Your task to perform on an android device: turn pop-ups off in chrome Image 0: 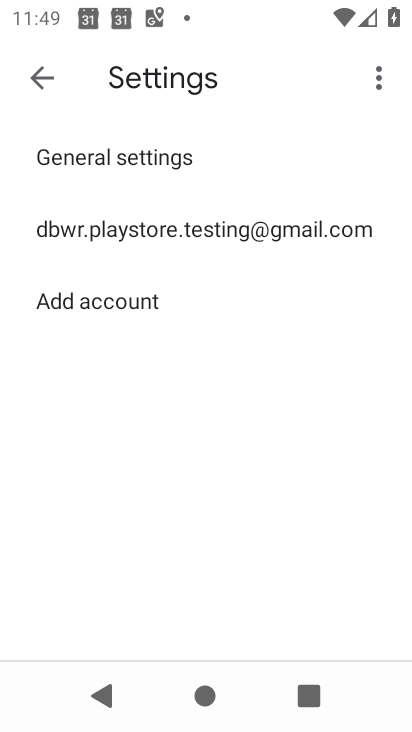
Step 0: press home button
Your task to perform on an android device: turn pop-ups off in chrome Image 1: 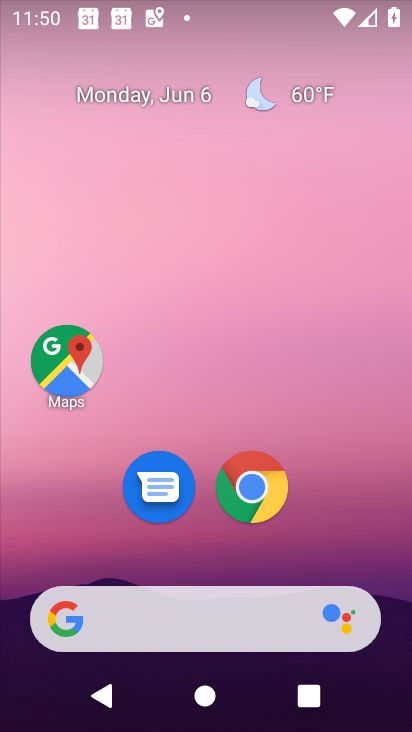
Step 1: click (267, 499)
Your task to perform on an android device: turn pop-ups off in chrome Image 2: 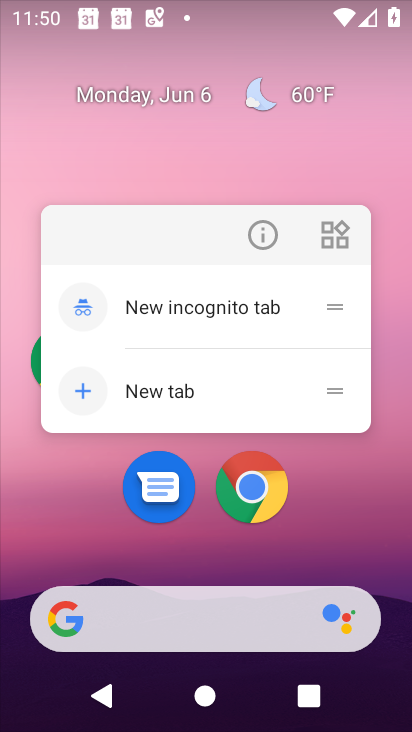
Step 2: click (267, 499)
Your task to perform on an android device: turn pop-ups off in chrome Image 3: 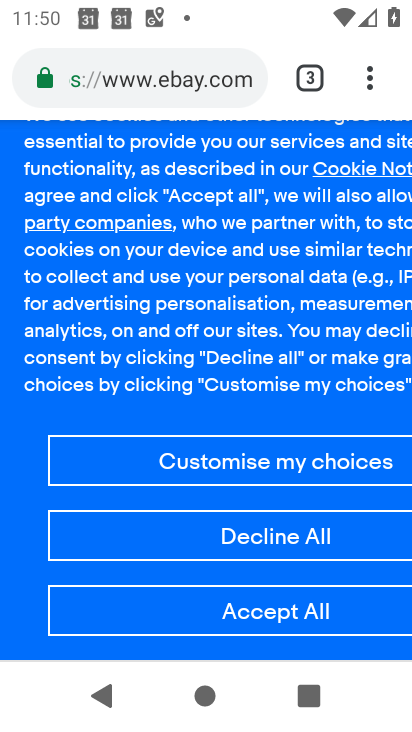
Step 3: click (372, 95)
Your task to perform on an android device: turn pop-ups off in chrome Image 4: 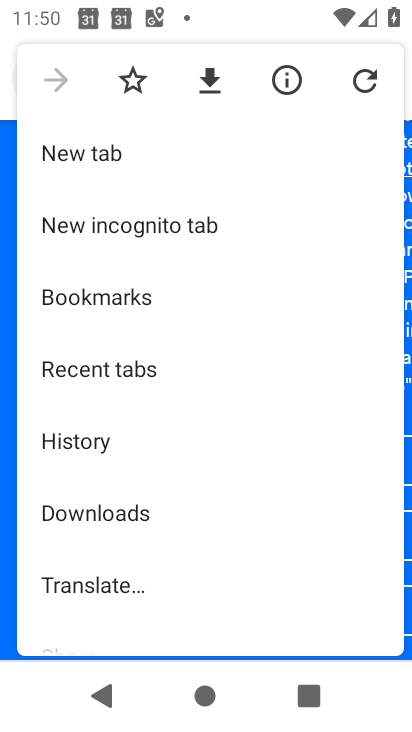
Step 4: drag from (207, 605) to (180, 182)
Your task to perform on an android device: turn pop-ups off in chrome Image 5: 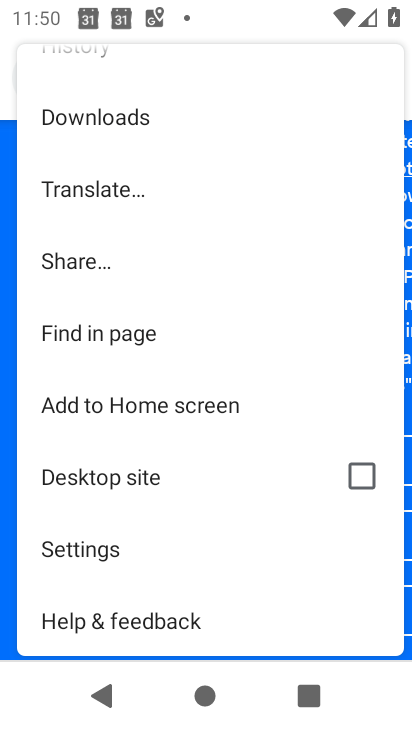
Step 5: click (158, 536)
Your task to perform on an android device: turn pop-ups off in chrome Image 6: 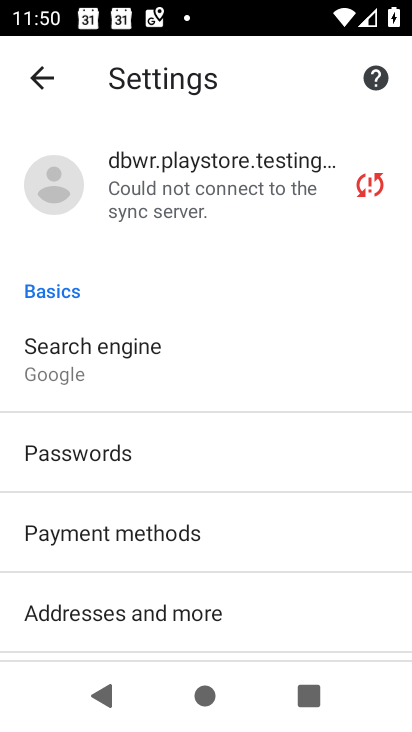
Step 6: drag from (244, 611) to (172, 315)
Your task to perform on an android device: turn pop-ups off in chrome Image 7: 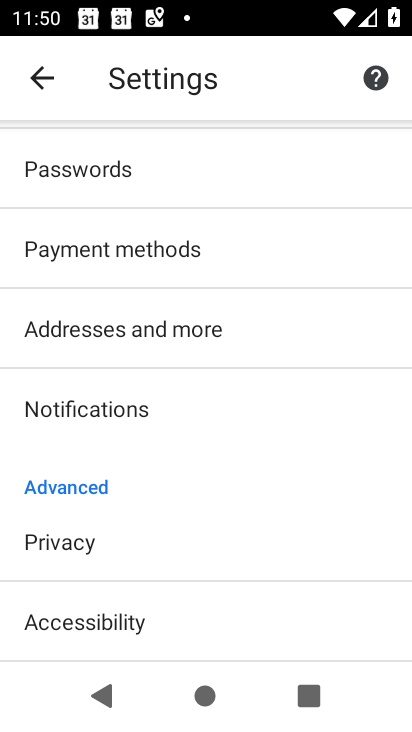
Step 7: drag from (170, 554) to (154, 288)
Your task to perform on an android device: turn pop-ups off in chrome Image 8: 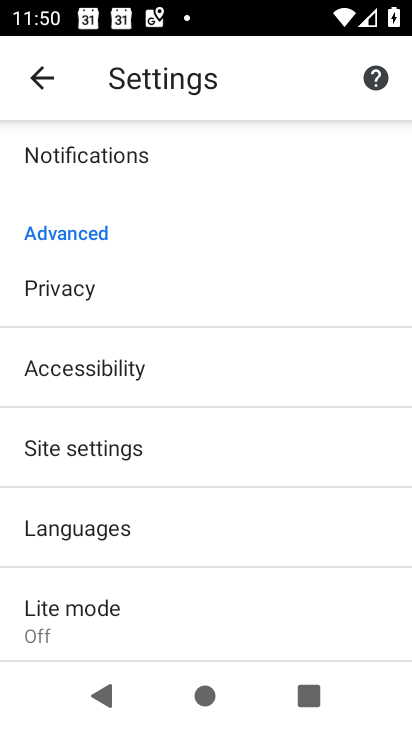
Step 8: click (162, 431)
Your task to perform on an android device: turn pop-ups off in chrome Image 9: 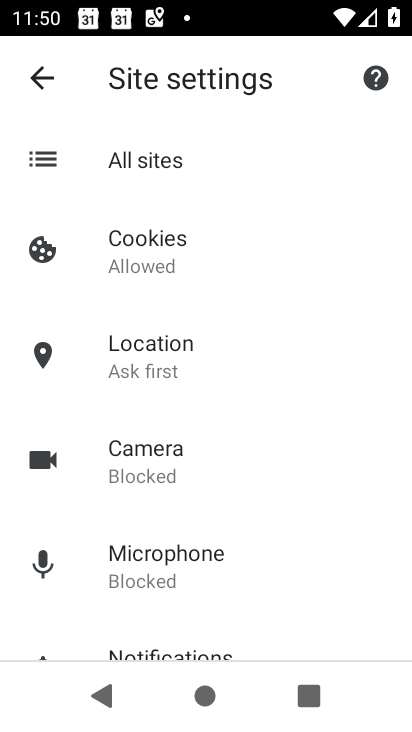
Step 9: drag from (247, 618) to (195, 127)
Your task to perform on an android device: turn pop-ups off in chrome Image 10: 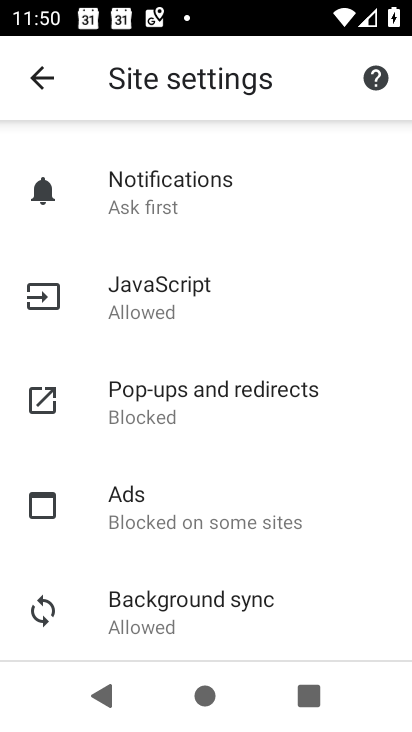
Step 10: click (231, 390)
Your task to perform on an android device: turn pop-ups off in chrome Image 11: 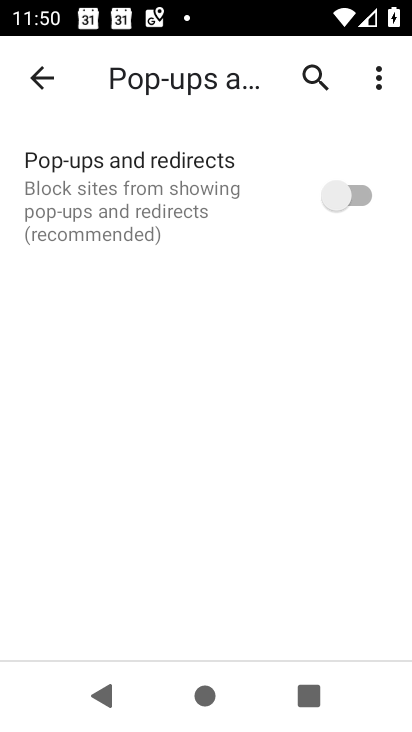
Step 11: task complete